Your task to perform on an android device: open chrome and create a bookmark for the current page Image 0: 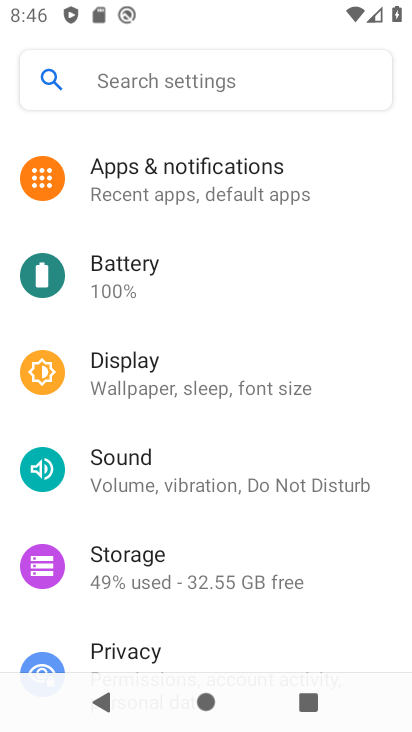
Step 0: press home button
Your task to perform on an android device: open chrome and create a bookmark for the current page Image 1: 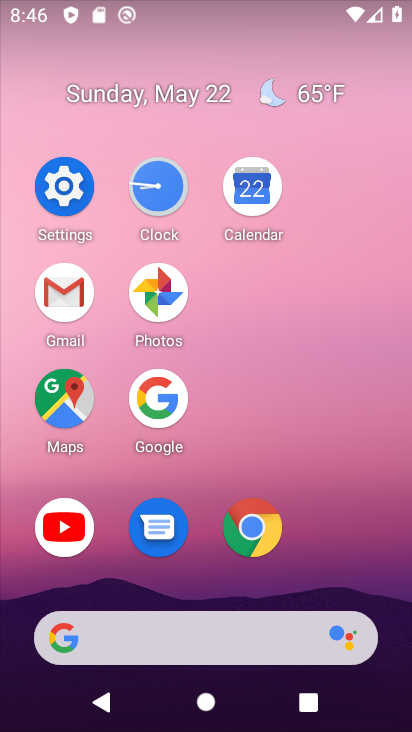
Step 1: click (269, 532)
Your task to perform on an android device: open chrome and create a bookmark for the current page Image 2: 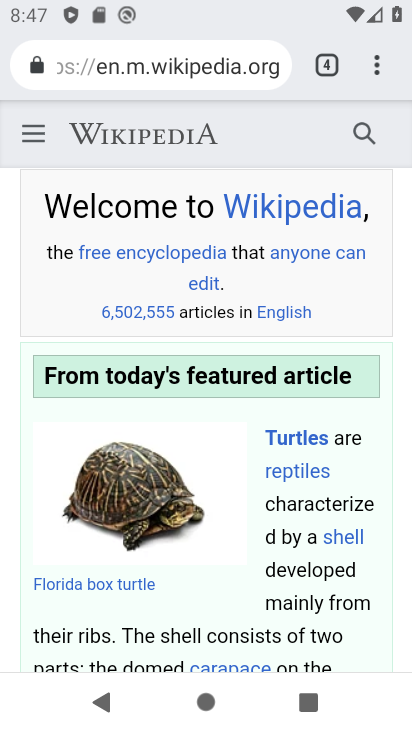
Step 2: click (375, 66)
Your task to perform on an android device: open chrome and create a bookmark for the current page Image 3: 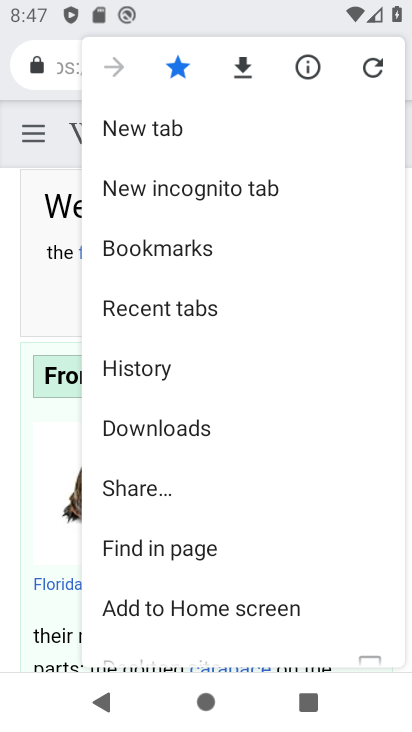
Step 3: task complete